Your task to perform on an android device: turn notification dots off Image 0: 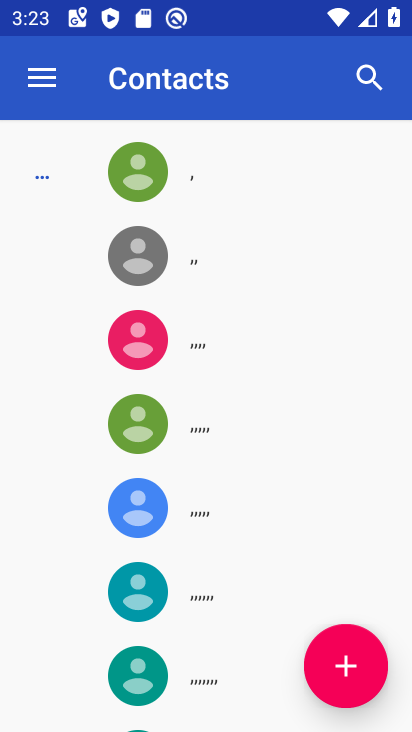
Step 0: press home button
Your task to perform on an android device: turn notification dots off Image 1: 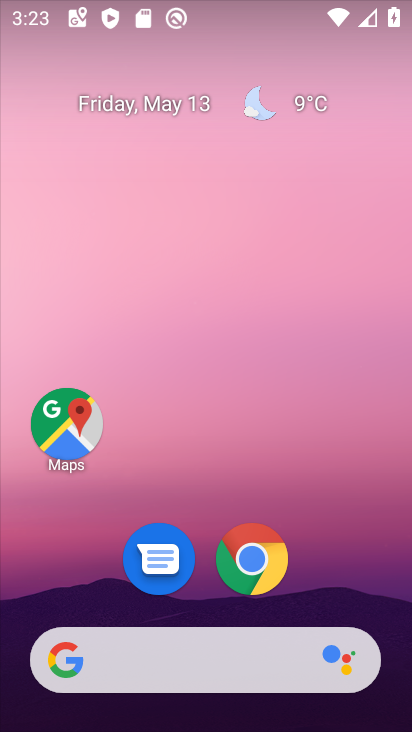
Step 1: drag from (389, 638) to (315, 72)
Your task to perform on an android device: turn notification dots off Image 2: 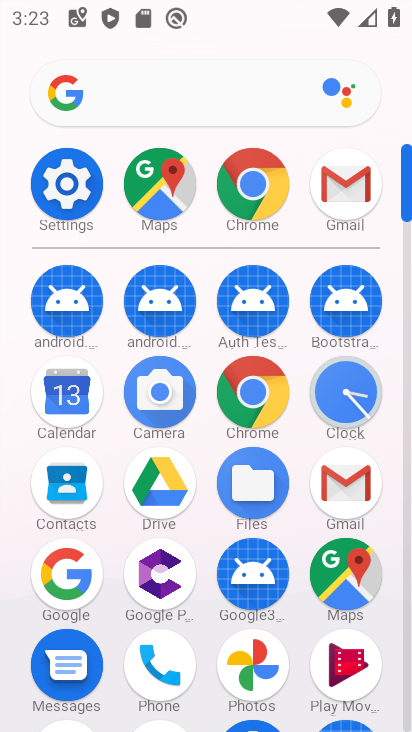
Step 2: click (405, 705)
Your task to perform on an android device: turn notification dots off Image 3: 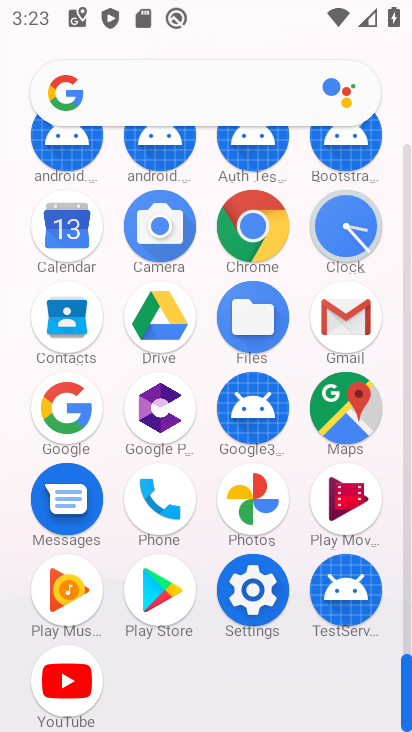
Step 3: click (247, 590)
Your task to perform on an android device: turn notification dots off Image 4: 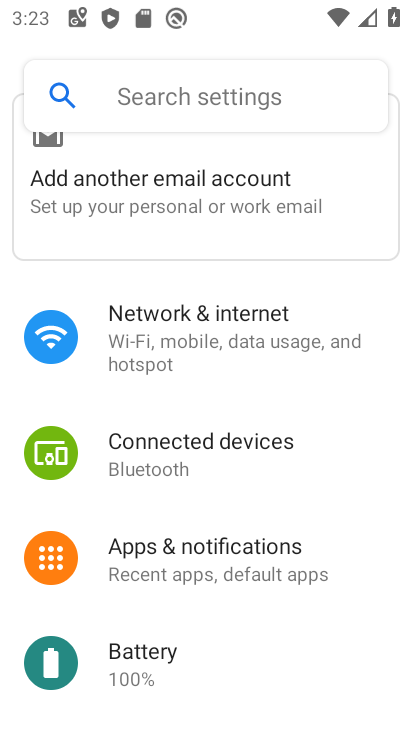
Step 4: click (174, 545)
Your task to perform on an android device: turn notification dots off Image 5: 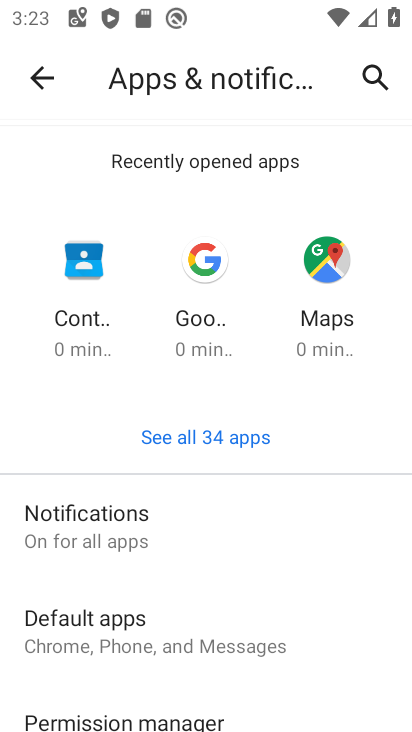
Step 5: click (78, 518)
Your task to perform on an android device: turn notification dots off Image 6: 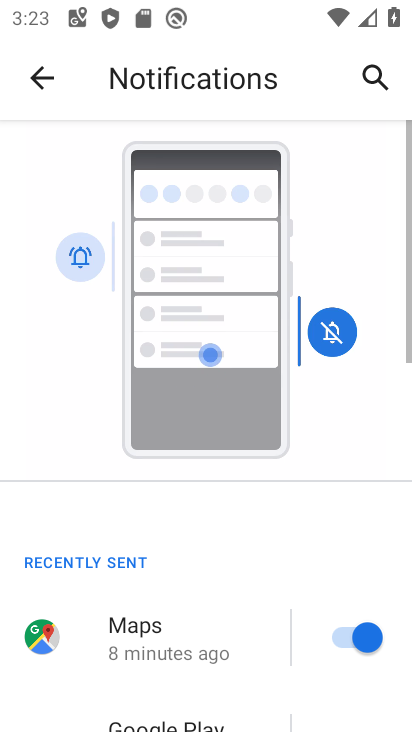
Step 6: drag from (330, 673) to (250, 109)
Your task to perform on an android device: turn notification dots off Image 7: 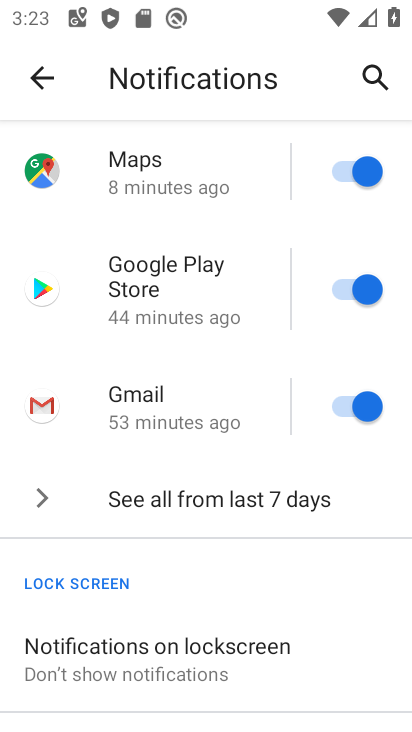
Step 7: drag from (288, 659) to (298, 186)
Your task to perform on an android device: turn notification dots off Image 8: 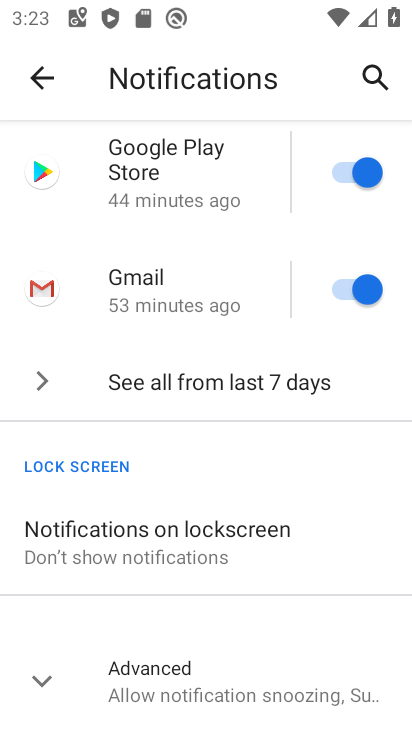
Step 8: click (33, 676)
Your task to perform on an android device: turn notification dots off Image 9: 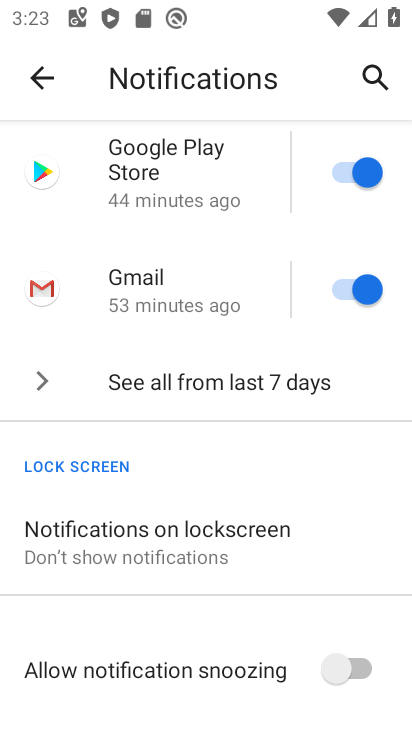
Step 9: task complete